Your task to perform on an android device: turn on airplane mode Image 0: 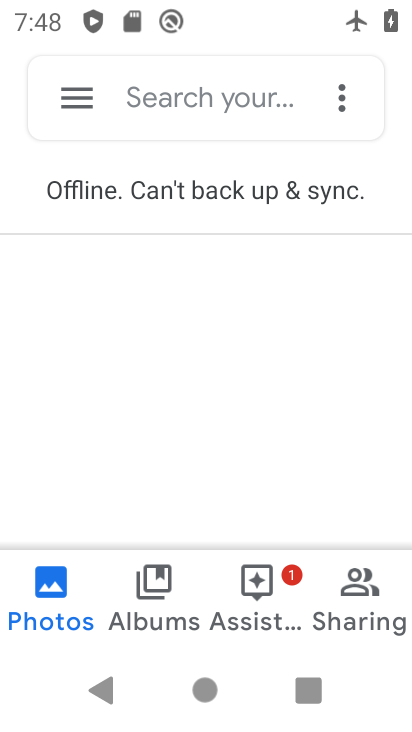
Step 0: press back button
Your task to perform on an android device: turn on airplane mode Image 1: 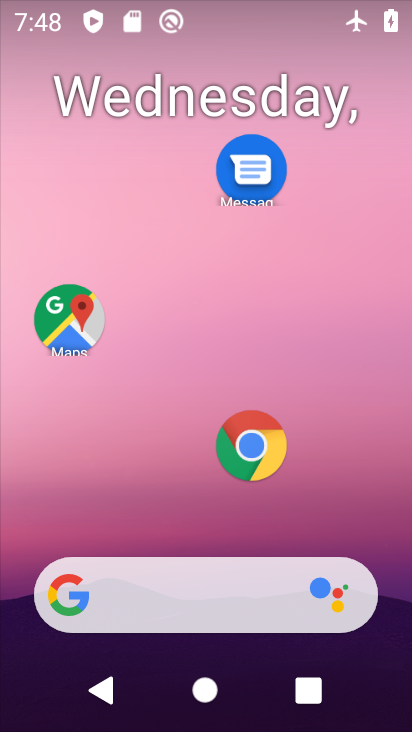
Step 1: drag from (348, 698) to (187, 229)
Your task to perform on an android device: turn on airplane mode Image 2: 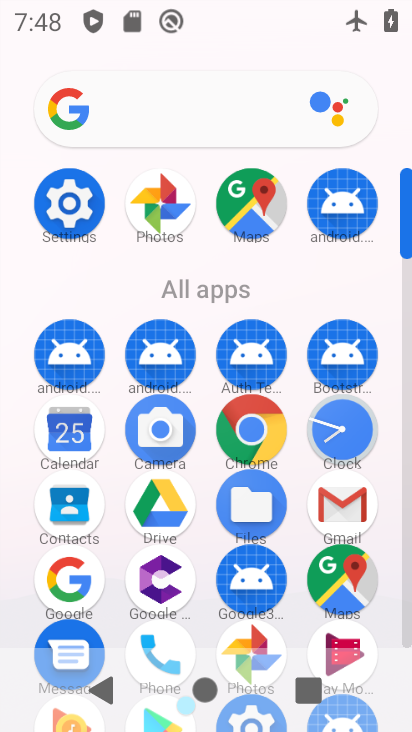
Step 2: click (69, 209)
Your task to perform on an android device: turn on airplane mode Image 3: 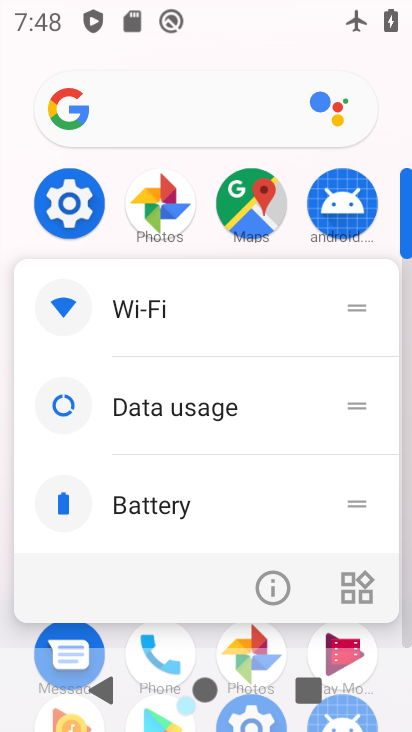
Step 3: click (69, 212)
Your task to perform on an android device: turn on airplane mode Image 4: 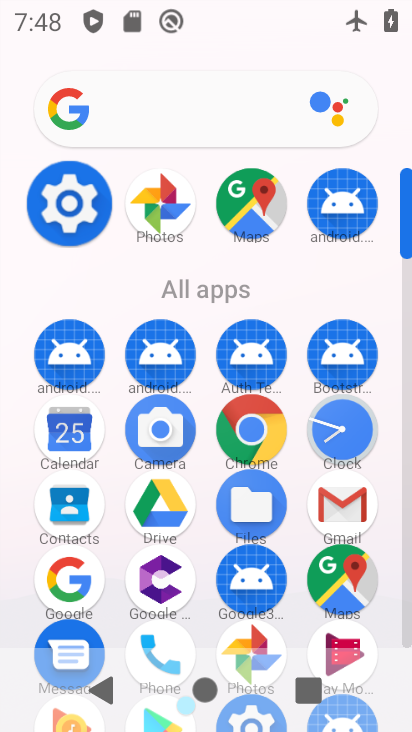
Step 4: click (73, 206)
Your task to perform on an android device: turn on airplane mode Image 5: 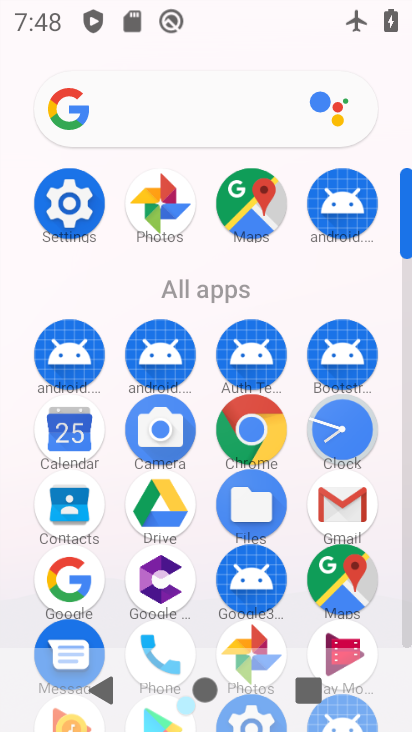
Step 5: click (75, 204)
Your task to perform on an android device: turn on airplane mode Image 6: 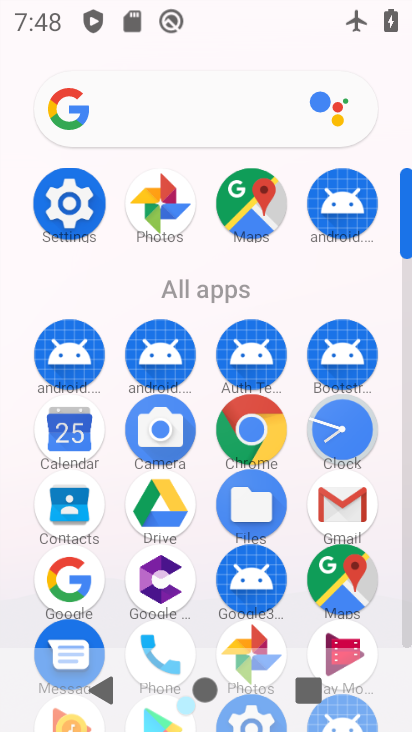
Step 6: click (75, 204)
Your task to perform on an android device: turn on airplane mode Image 7: 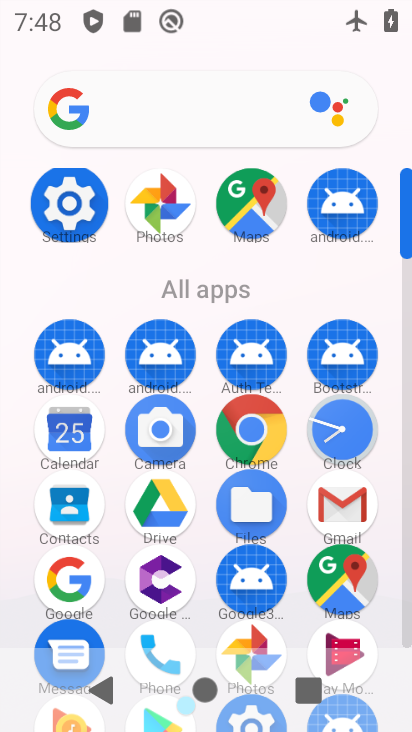
Step 7: click (76, 204)
Your task to perform on an android device: turn on airplane mode Image 8: 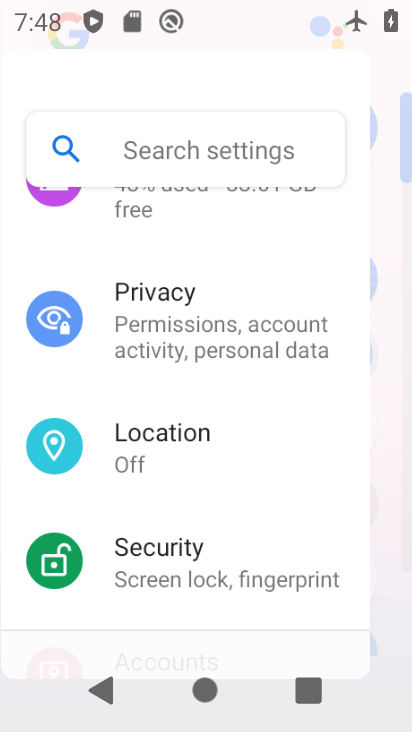
Step 8: click (80, 204)
Your task to perform on an android device: turn on airplane mode Image 9: 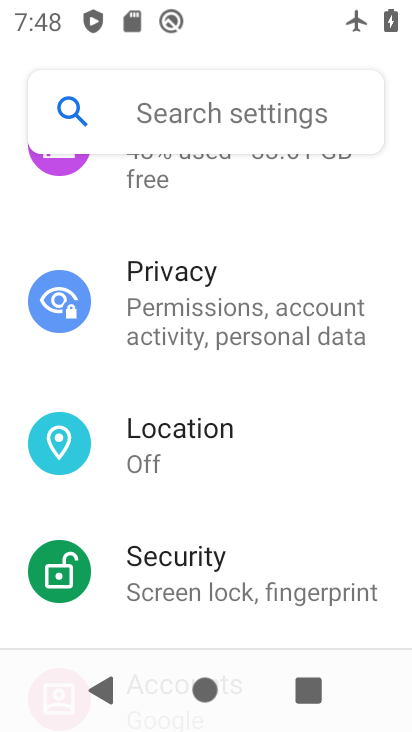
Step 9: click (80, 204)
Your task to perform on an android device: turn on airplane mode Image 10: 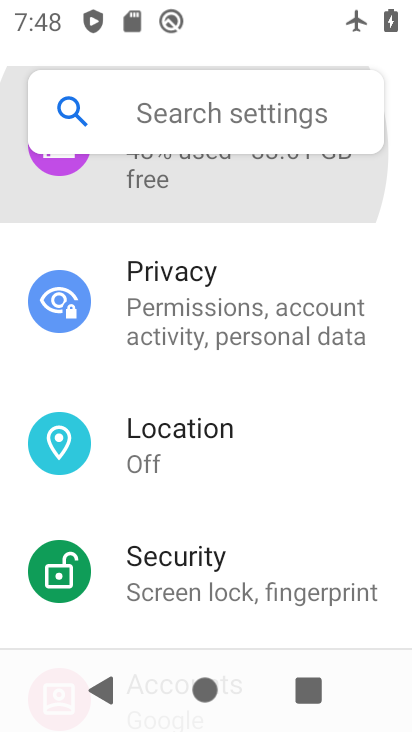
Step 10: click (80, 204)
Your task to perform on an android device: turn on airplane mode Image 11: 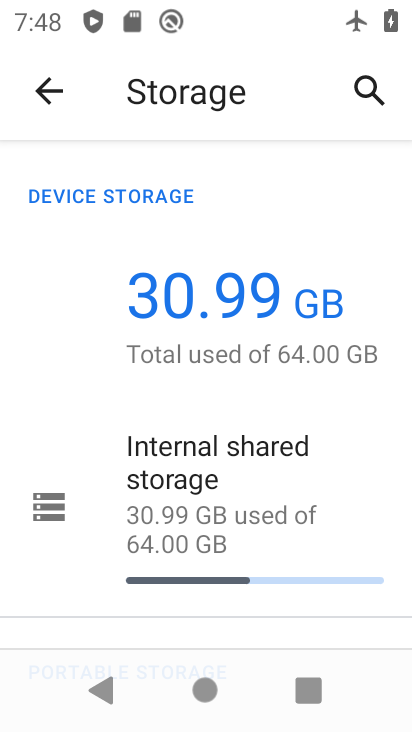
Step 11: click (51, 105)
Your task to perform on an android device: turn on airplane mode Image 12: 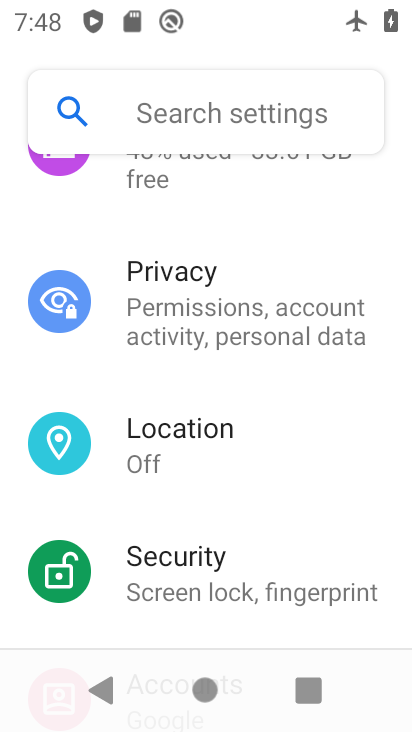
Step 12: drag from (224, 241) to (224, 714)
Your task to perform on an android device: turn on airplane mode Image 13: 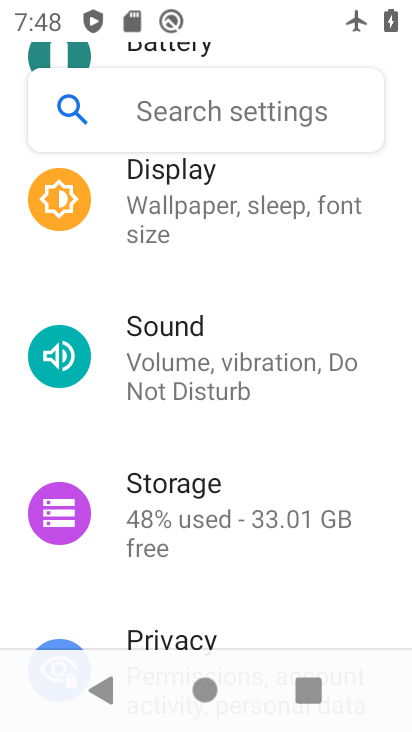
Step 13: drag from (228, 220) to (195, 624)
Your task to perform on an android device: turn on airplane mode Image 14: 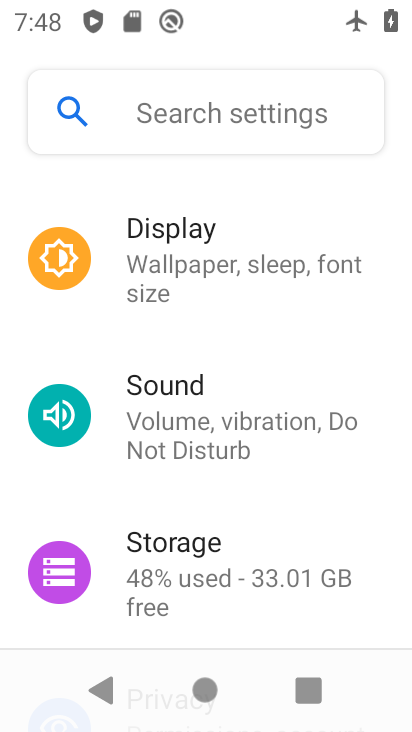
Step 14: drag from (222, 259) to (222, 649)
Your task to perform on an android device: turn on airplane mode Image 15: 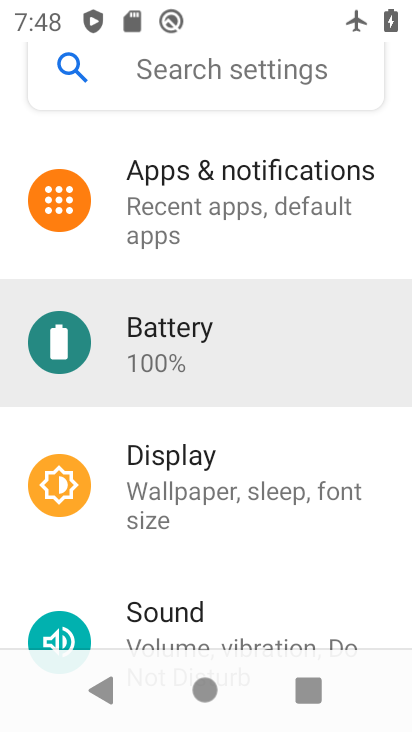
Step 15: drag from (211, 273) to (231, 686)
Your task to perform on an android device: turn on airplane mode Image 16: 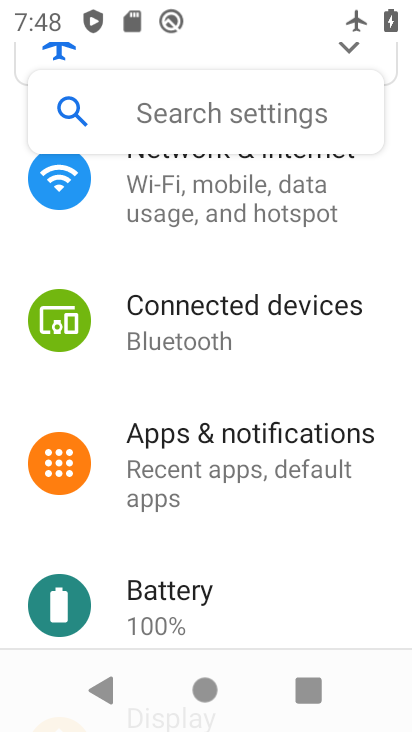
Step 16: drag from (210, 222) to (209, 721)
Your task to perform on an android device: turn on airplane mode Image 17: 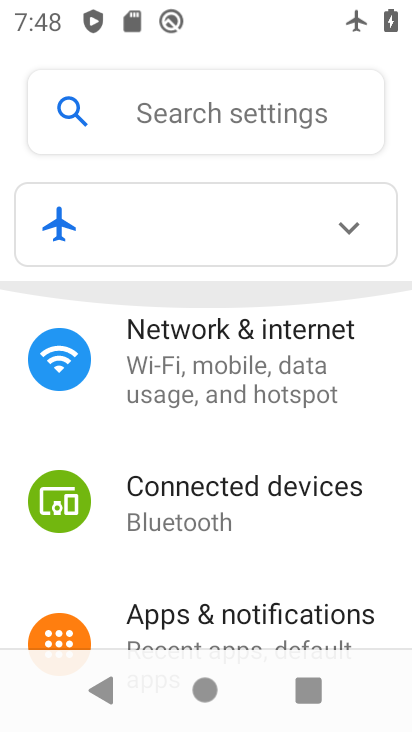
Step 17: drag from (213, 273) to (237, 706)
Your task to perform on an android device: turn on airplane mode Image 18: 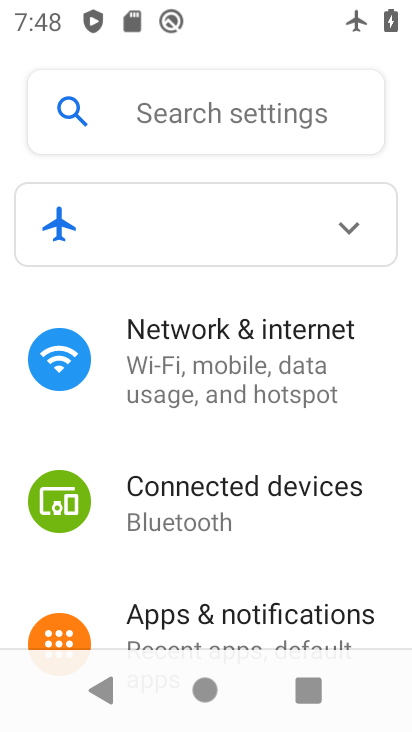
Step 18: click (223, 361)
Your task to perform on an android device: turn on airplane mode Image 19: 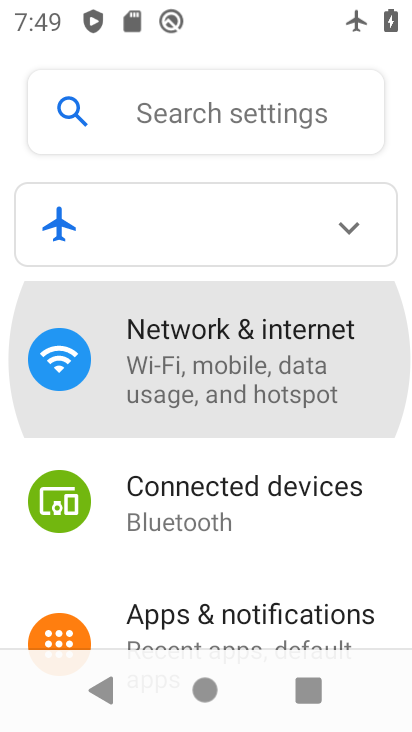
Step 19: click (223, 361)
Your task to perform on an android device: turn on airplane mode Image 20: 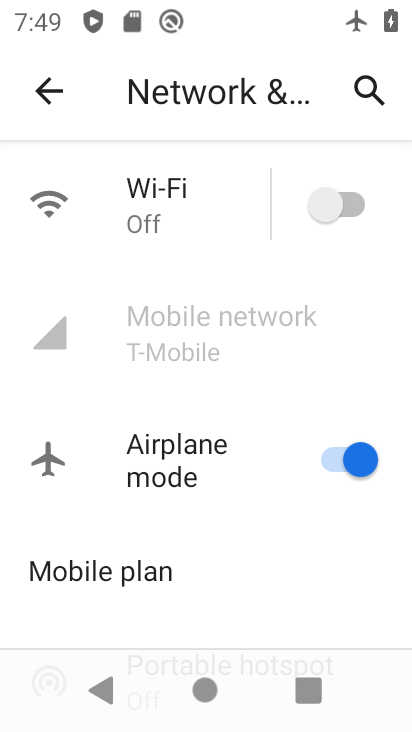
Step 20: task complete